Your task to perform on an android device: Open the stopwatch Image 0: 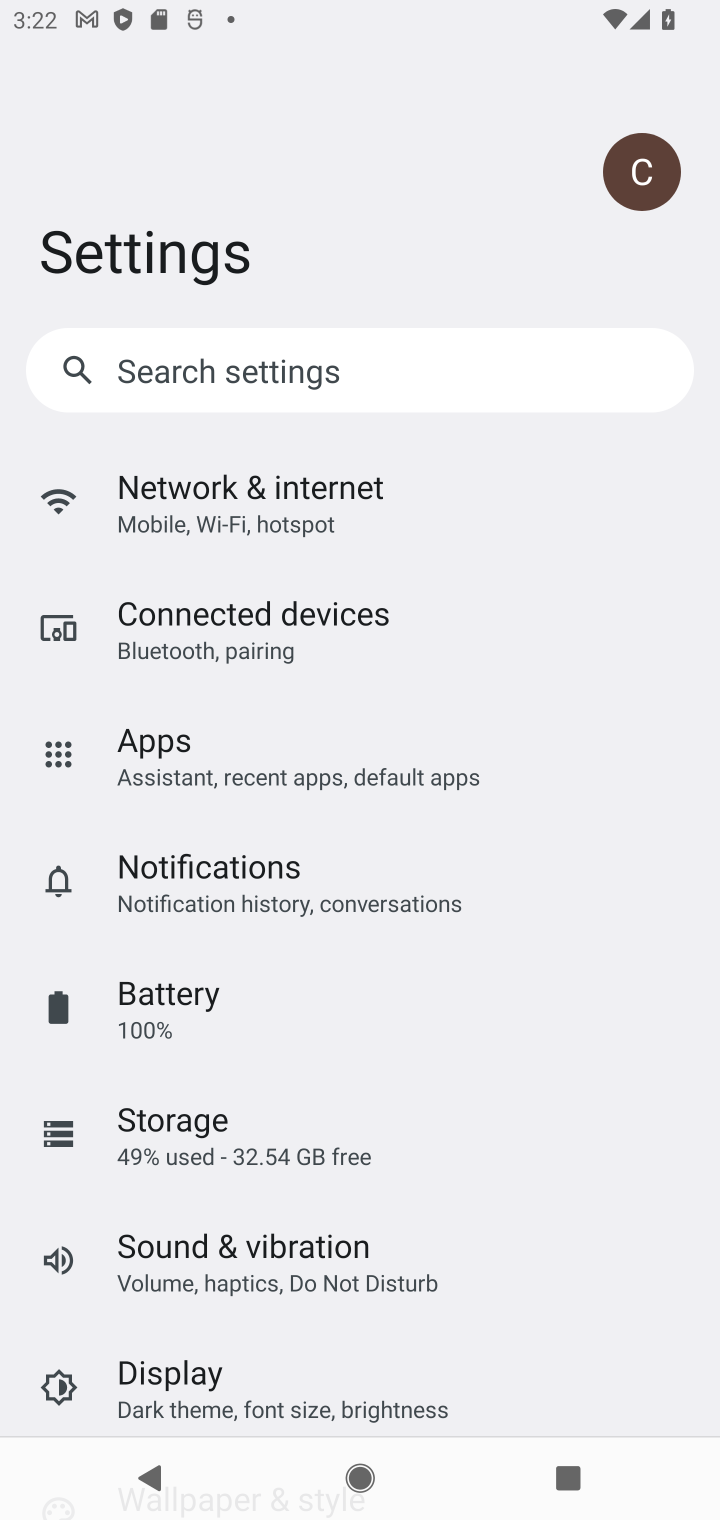
Step 0: press home button
Your task to perform on an android device: Open the stopwatch Image 1: 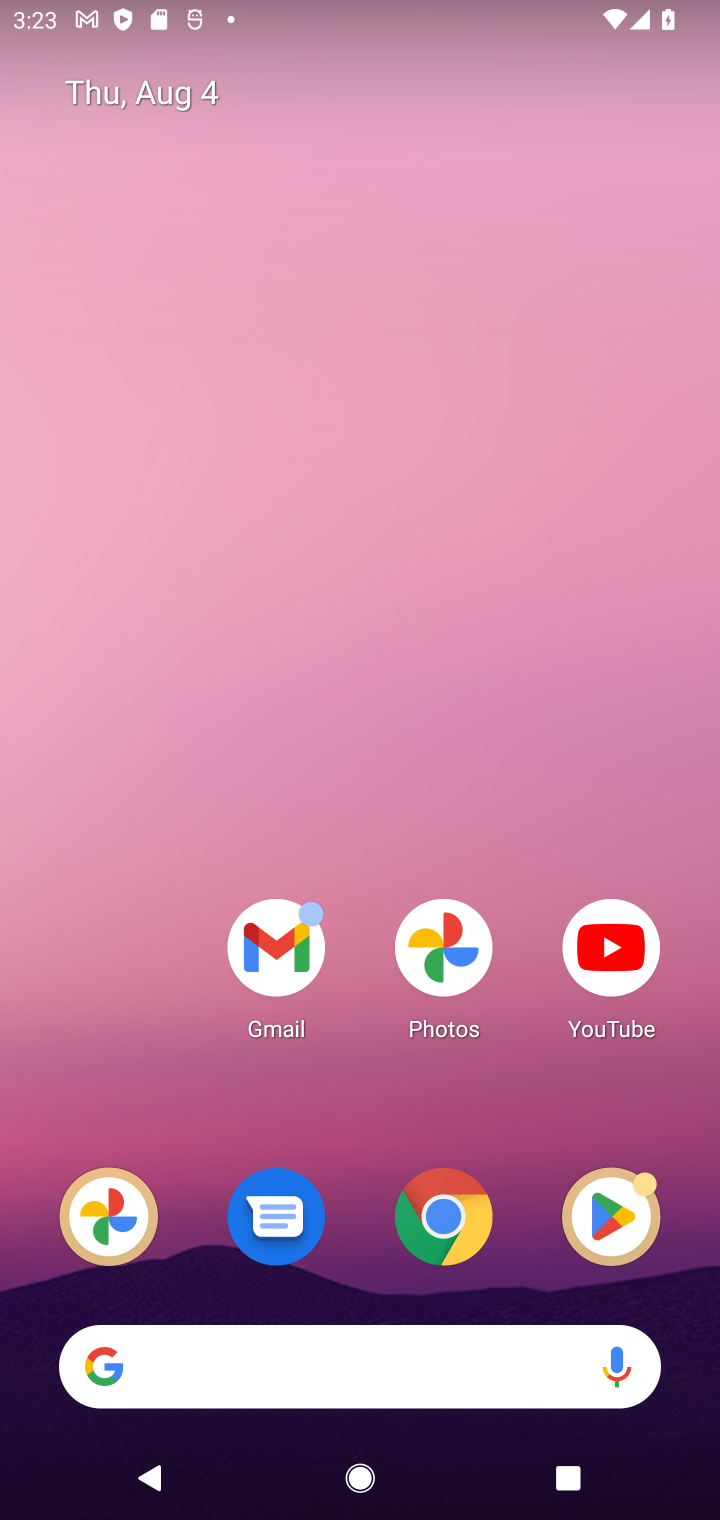
Step 1: drag from (143, 1010) to (562, 255)
Your task to perform on an android device: Open the stopwatch Image 2: 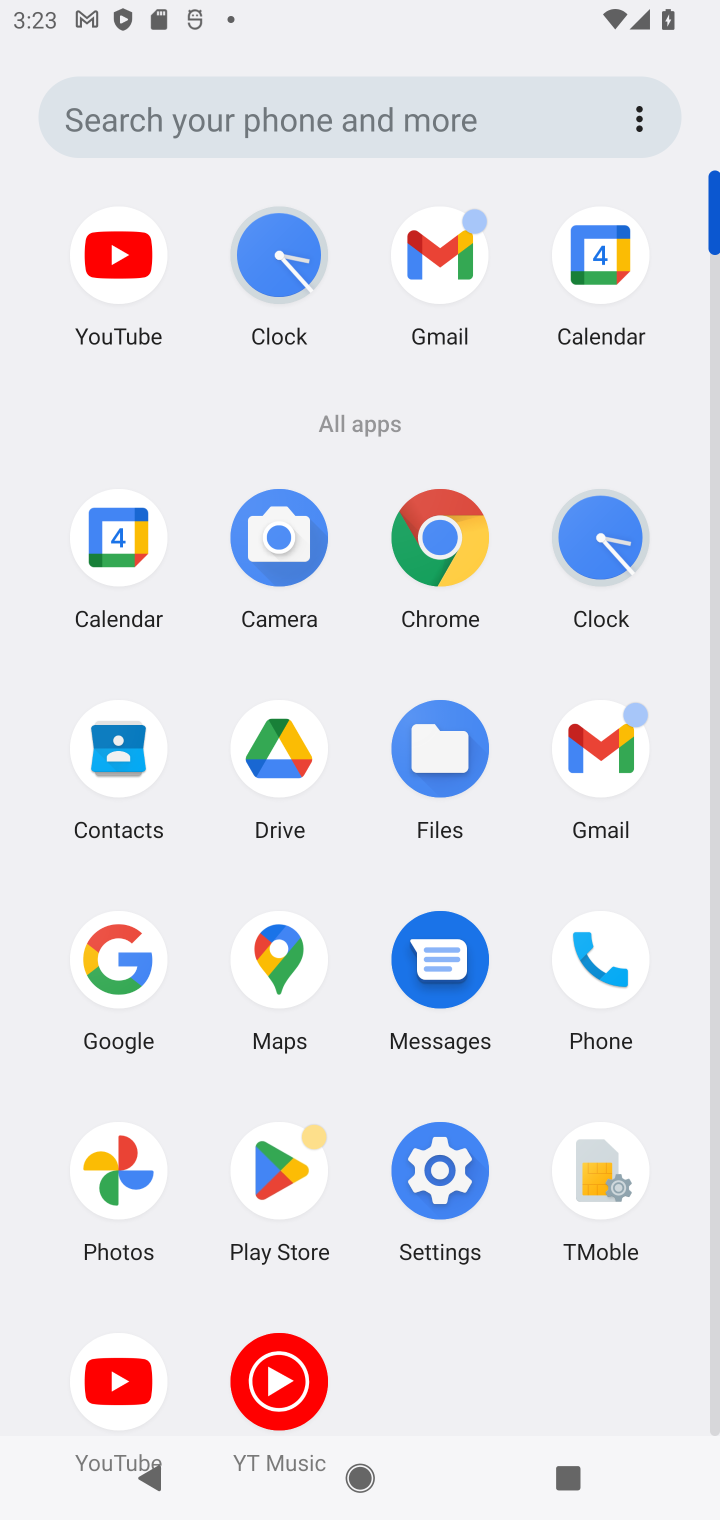
Step 2: click (612, 546)
Your task to perform on an android device: Open the stopwatch Image 3: 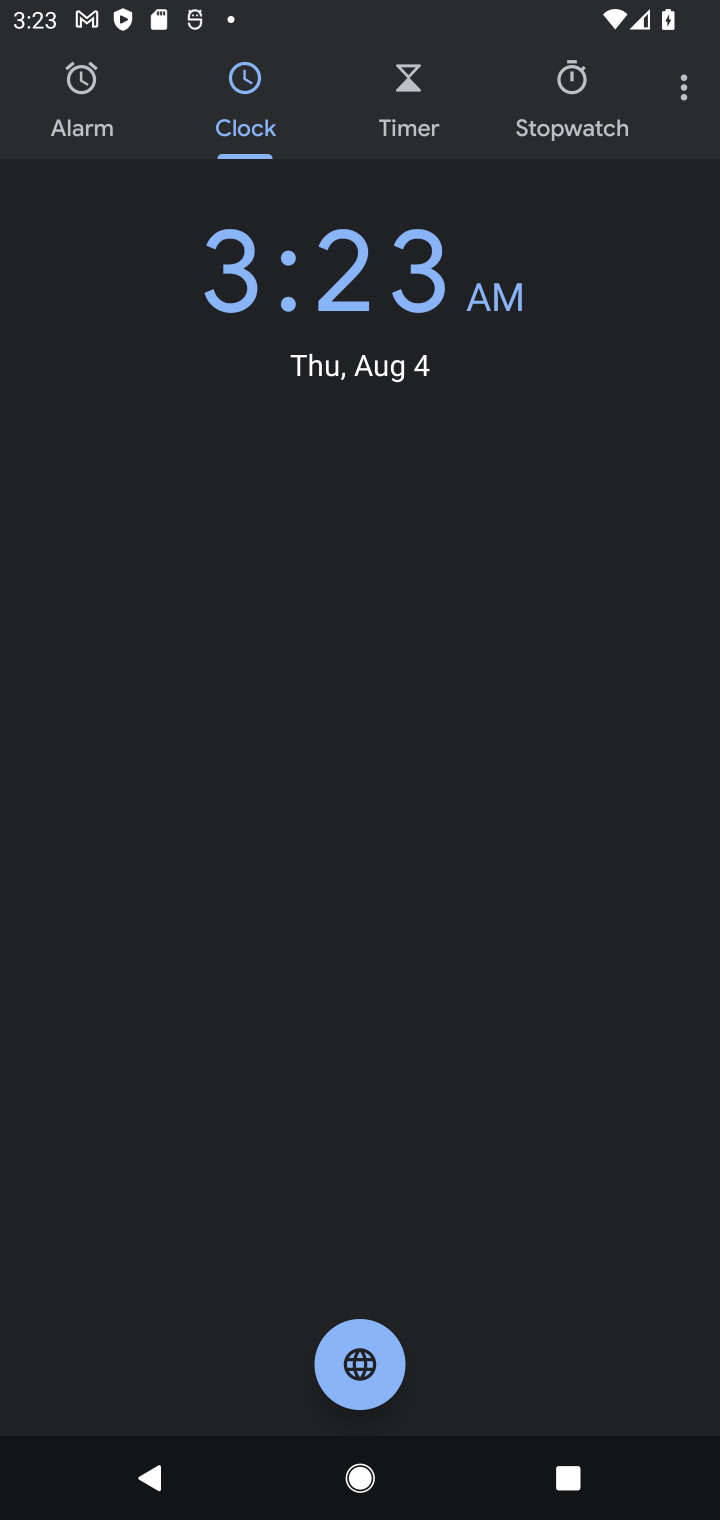
Step 3: click (535, 114)
Your task to perform on an android device: Open the stopwatch Image 4: 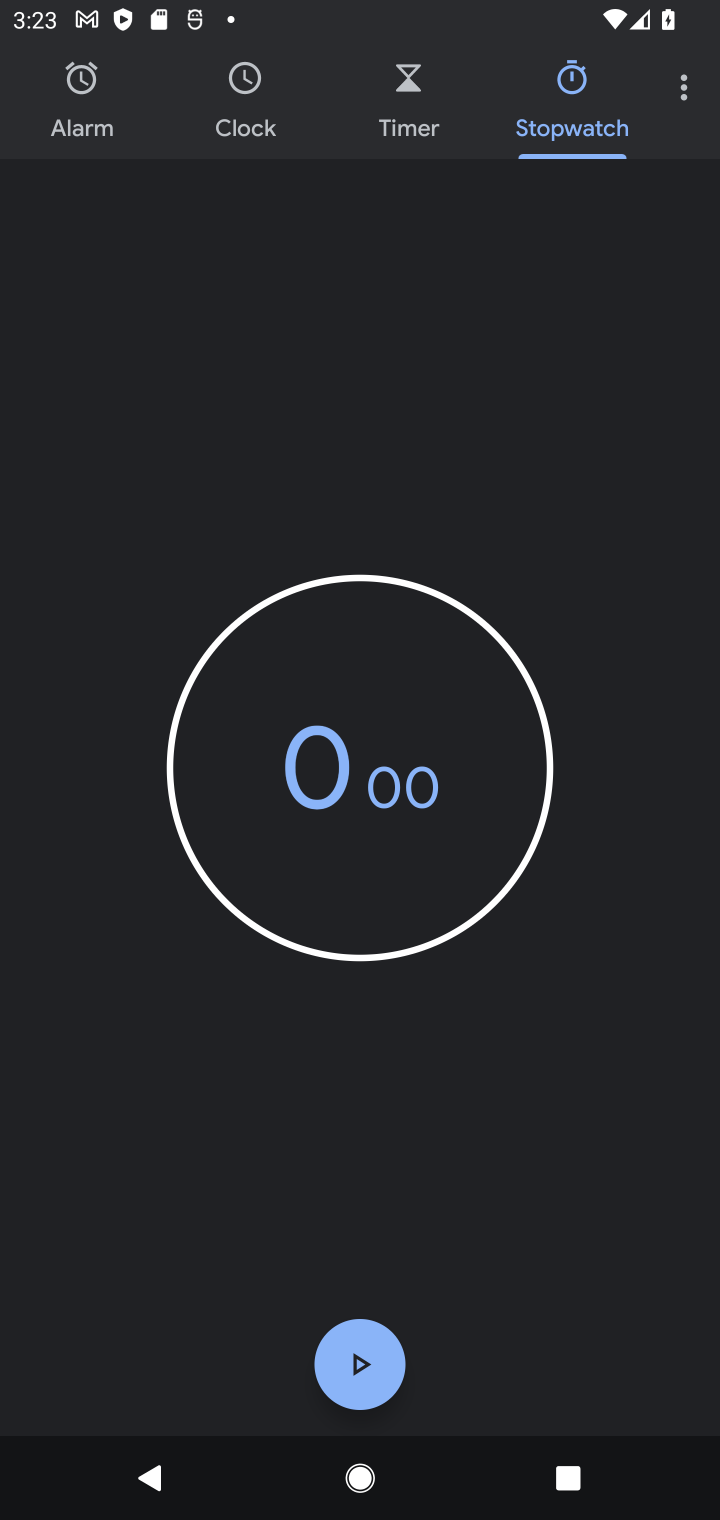
Step 4: click (377, 1362)
Your task to perform on an android device: Open the stopwatch Image 5: 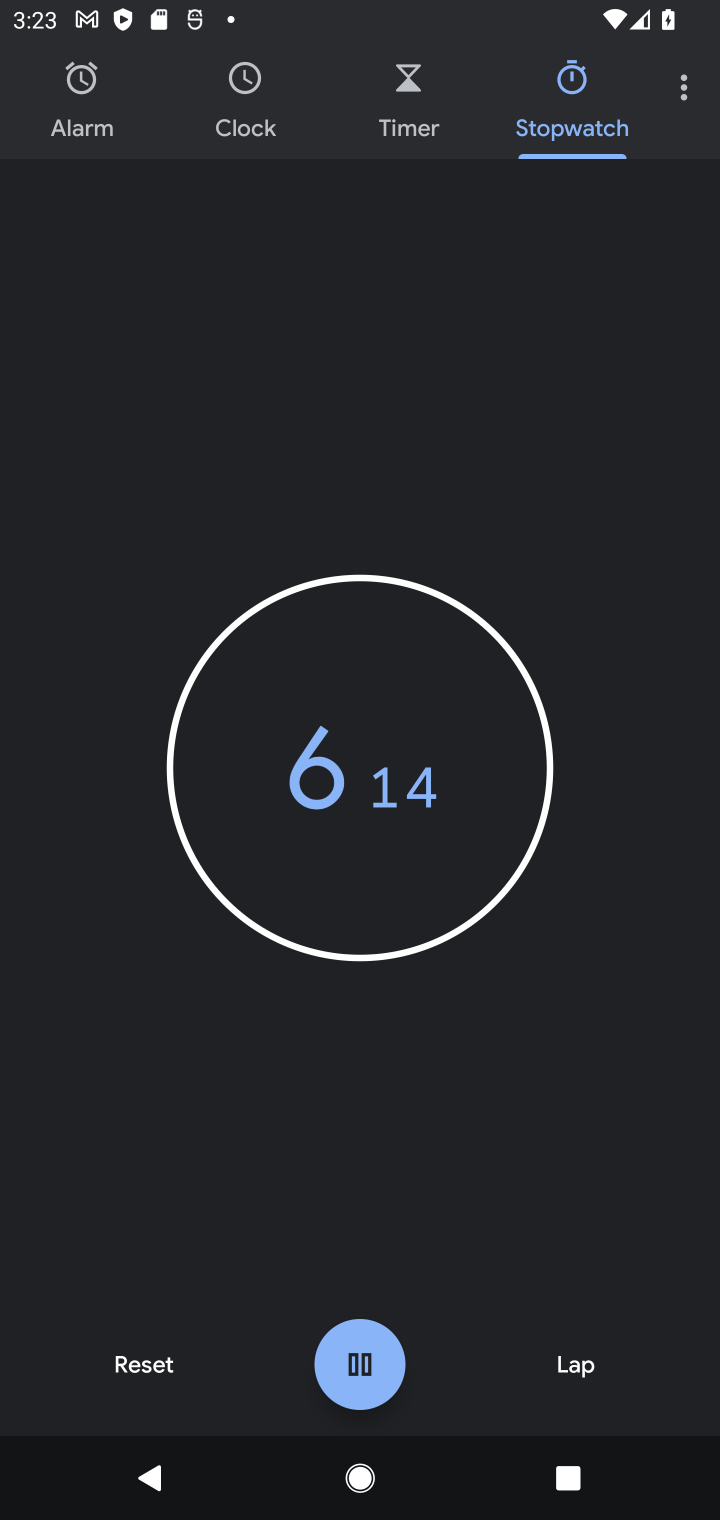
Step 5: task complete